Your task to perform on an android device: turn on sleep mode Image 0: 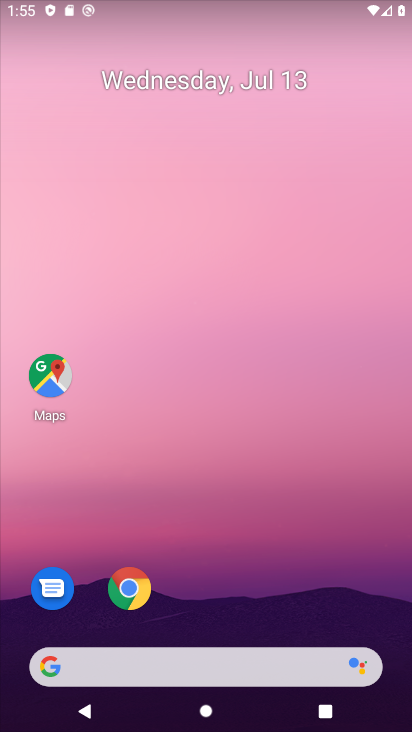
Step 0: drag from (223, 603) to (275, 109)
Your task to perform on an android device: turn on sleep mode Image 1: 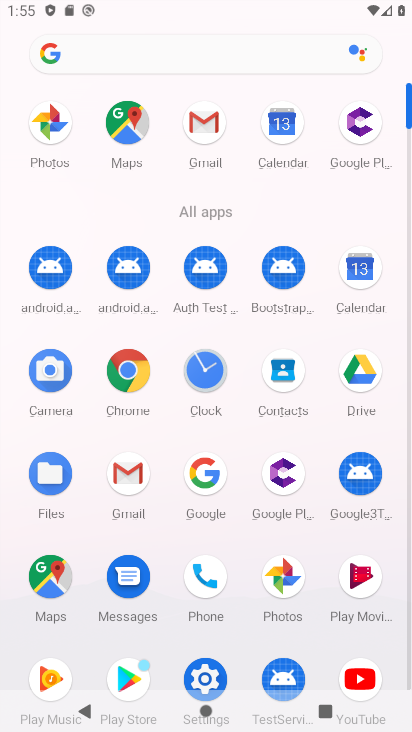
Step 1: click (201, 667)
Your task to perform on an android device: turn on sleep mode Image 2: 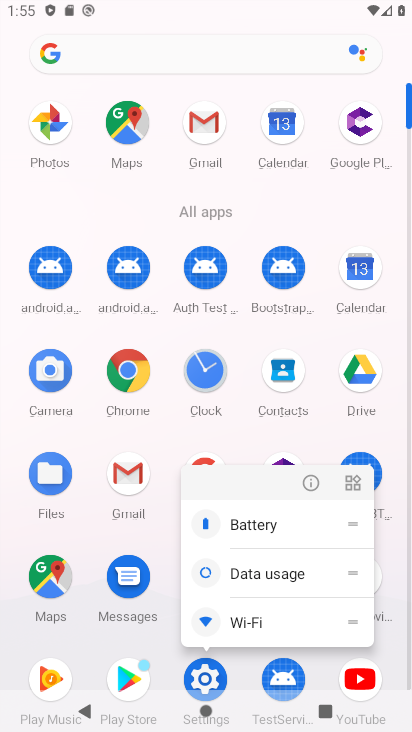
Step 2: click (304, 479)
Your task to perform on an android device: turn on sleep mode Image 3: 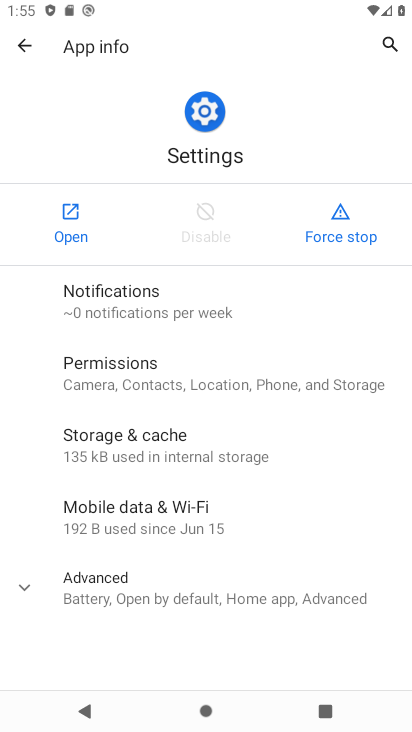
Step 3: click (71, 209)
Your task to perform on an android device: turn on sleep mode Image 4: 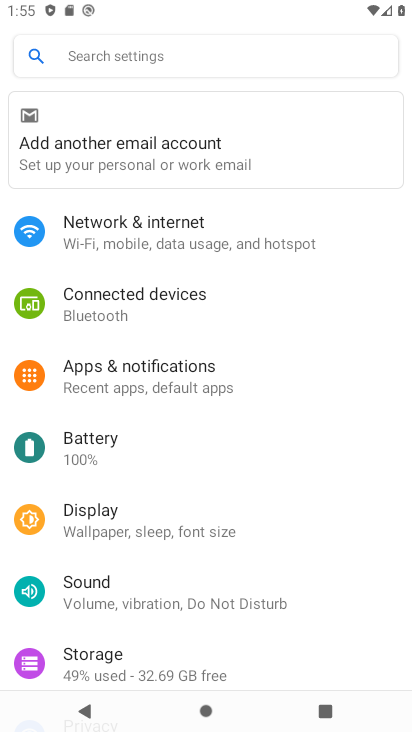
Step 4: drag from (180, 586) to (204, 266)
Your task to perform on an android device: turn on sleep mode Image 5: 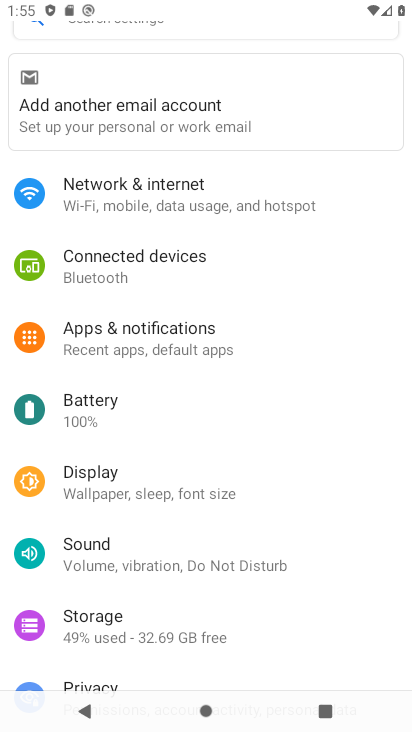
Step 5: drag from (186, 539) to (190, 201)
Your task to perform on an android device: turn on sleep mode Image 6: 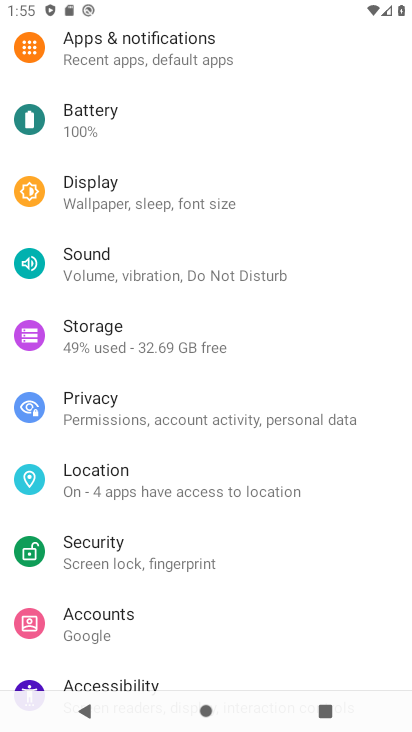
Step 6: click (117, 190)
Your task to perform on an android device: turn on sleep mode Image 7: 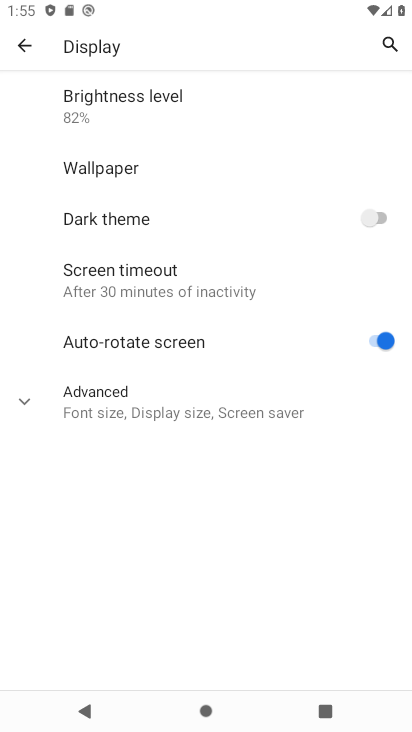
Step 7: click (165, 391)
Your task to perform on an android device: turn on sleep mode Image 8: 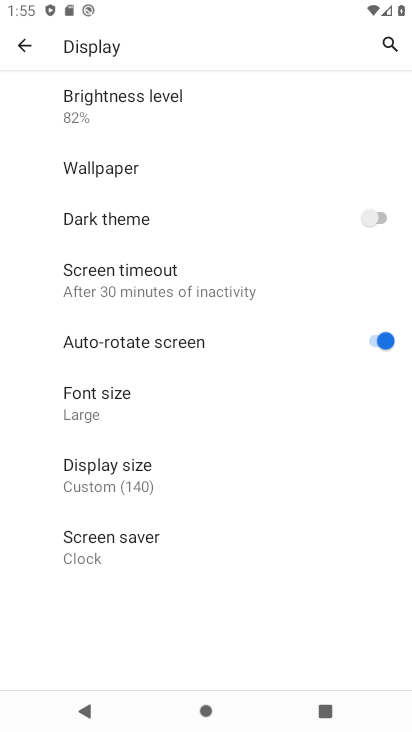
Step 8: click (167, 287)
Your task to perform on an android device: turn on sleep mode Image 9: 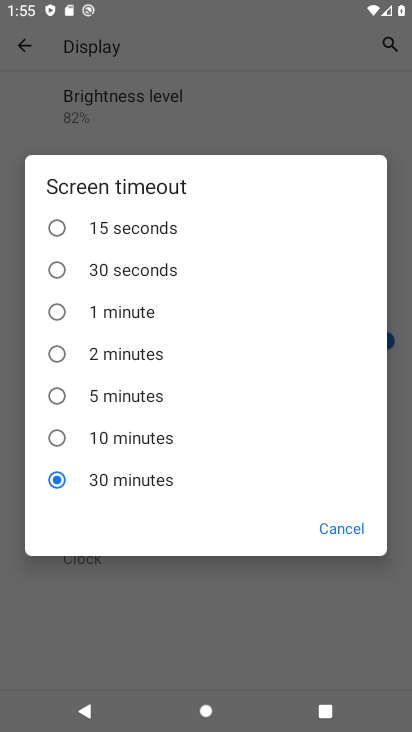
Step 9: task complete